Your task to perform on an android device: Turn on the flashlight Image 0: 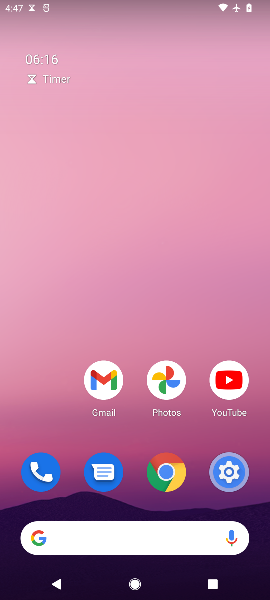
Step 0: drag from (156, 460) to (197, 165)
Your task to perform on an android device: Turn on the flashlight Image 1: 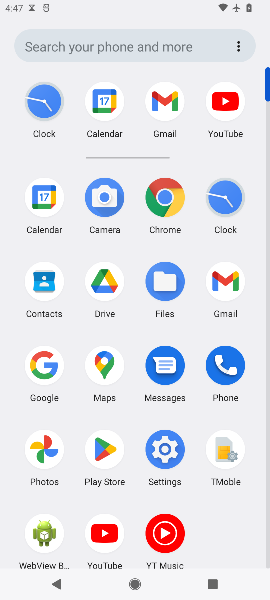
Step 1: click (161, 451)
Your task to perform on an android device: Turn on the flashlight Image 2: 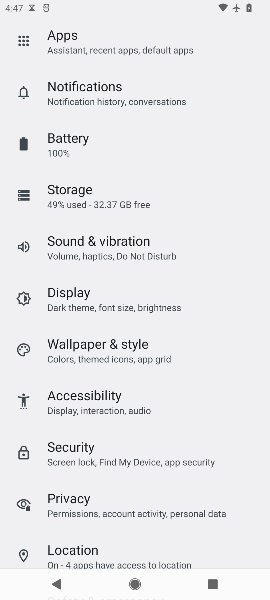
Step 2: drag from (120, 91) to (119, 352)
Your task to perform on an android device: Turn on the flashlight Image 3: 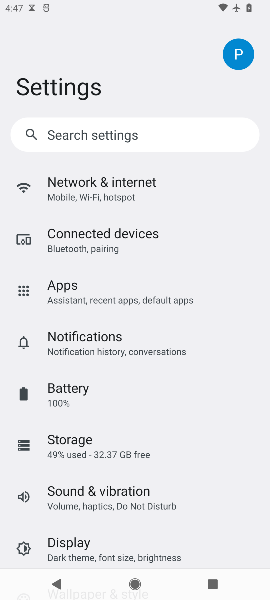
Step 3: click (106, 140)
Your task to perform on an android device: Turn on the flashlight Image 4: 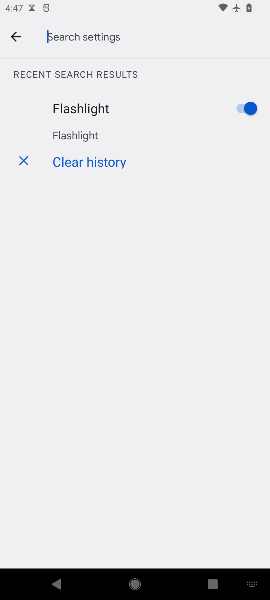
Step 4: type "flashlight"
Your task to perform on an android device: Turn on the flashlight Image 5: 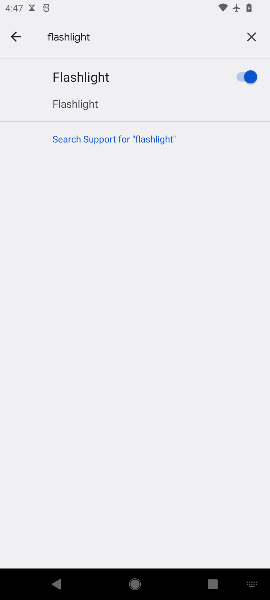
Step 5: task complete